Your task to perform on an android device: Turn off the flashlight Image 0: 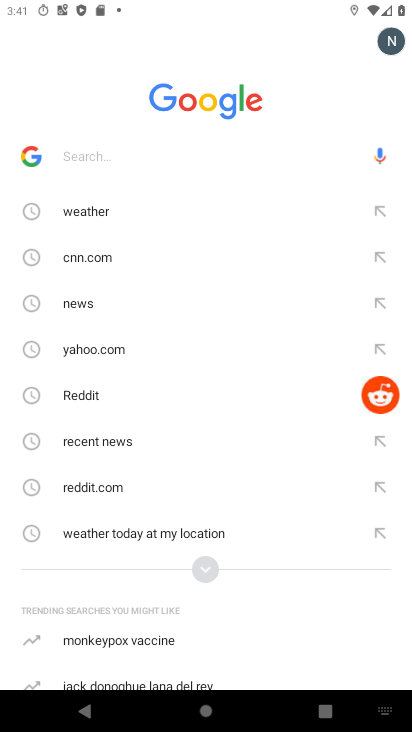
Step 0: press home button
Your task to perform on an android device: Turn off the flashlight Image 1: 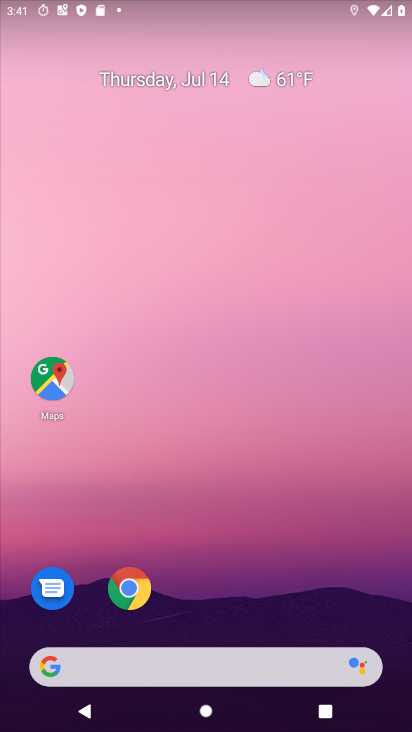
Step 1: drag from (199, 659) to (246, 287)
Your task to perform on an android device: Turn off the flashlight Image 2: 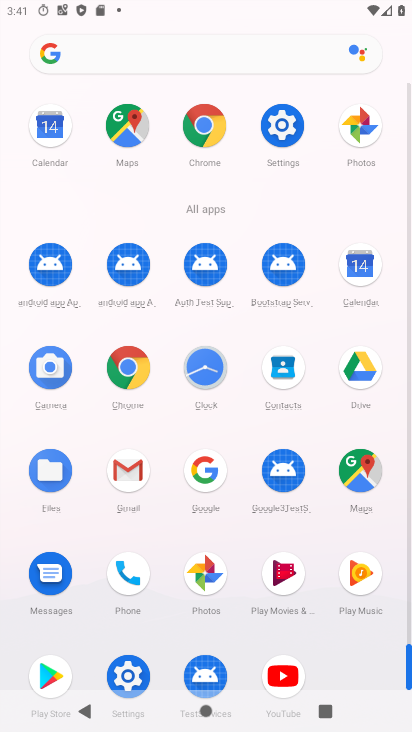
Step 2: click (281, 120)
Your task to perform on an android device: Turn off the flashlight Image 3: 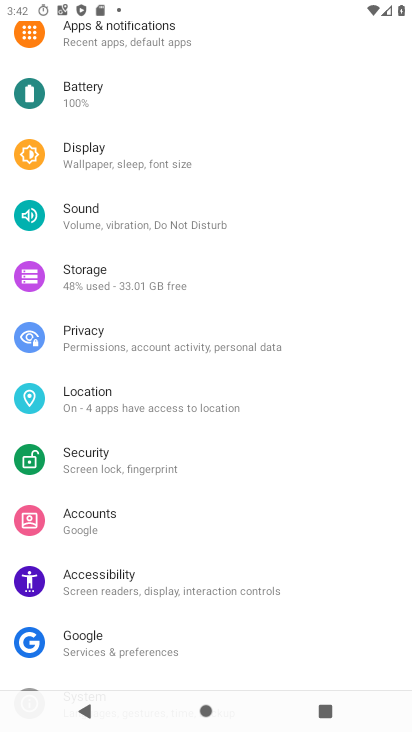
Step 3: drag from (116, 171) to (86, 341)
Your task to perform on an android device: Turn off the flashlight Image 4: 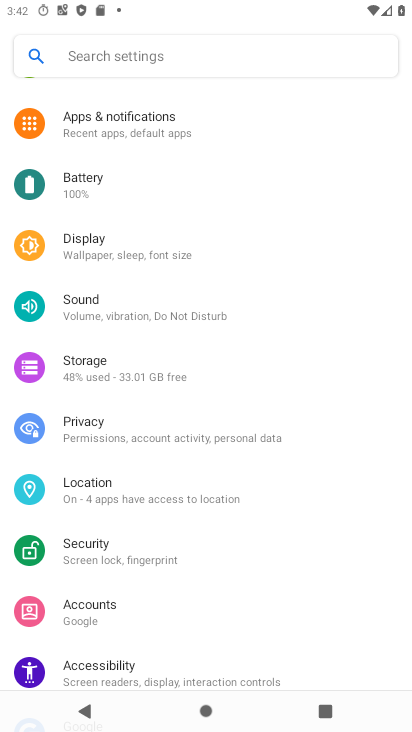
Step 4: click (113, 311)
Your task to perform on an android device: Turn off the flashlight Image 5: 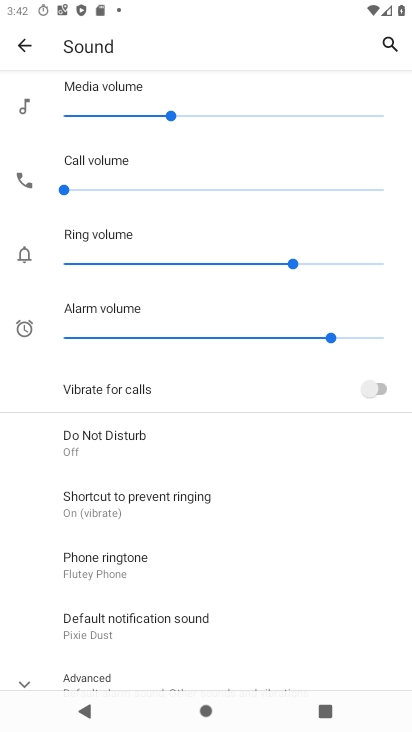
Step 5: press back button
Your task to perform on an android device: Turn off the flashlight Image 6: 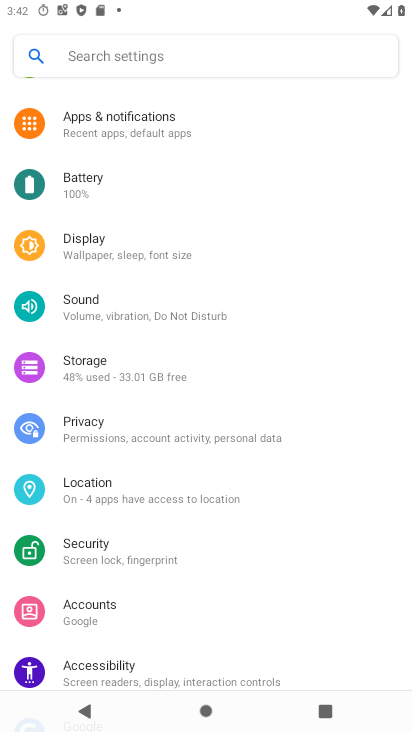
Step 6: click (104, 252)
Your task to perform on an android device: Turn off the flashlight Image 7: 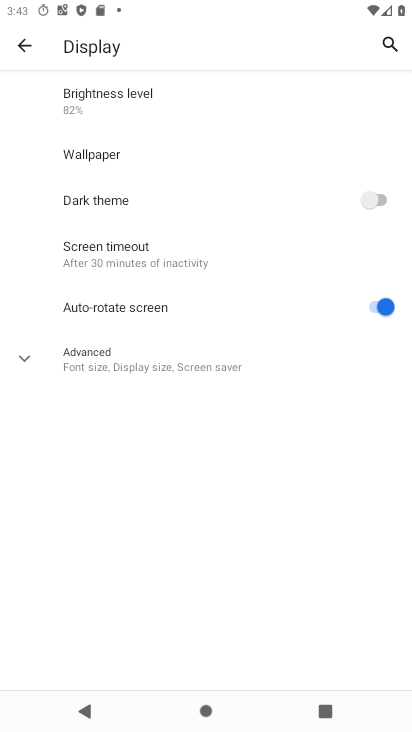
Step 7: task complete